Your task to perform on an android device: Open wifi settings Image 0: 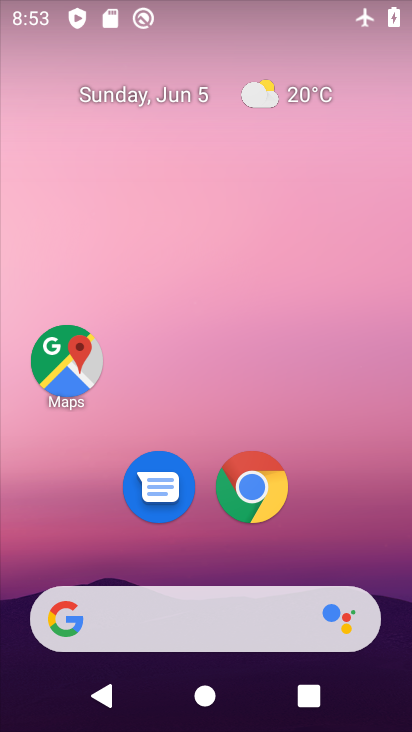
Step 0: drag from (178, 630) to (234, 109)
Your task to perform on an android device: Open wifi settings Image 1: 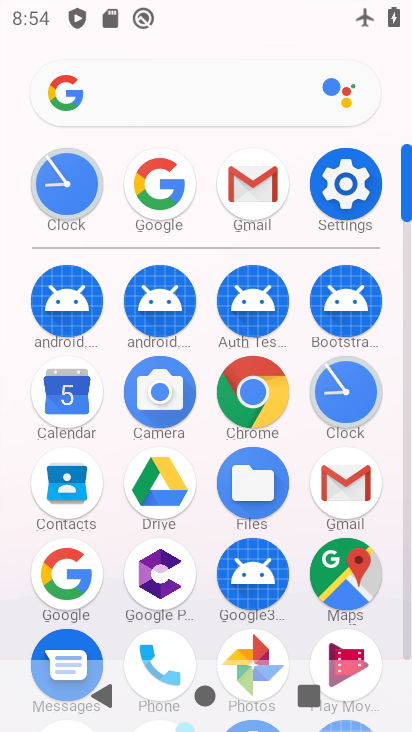
Step 1: click (340, 193)
Your task to perform on an android device: Open wifi settings Image 2: 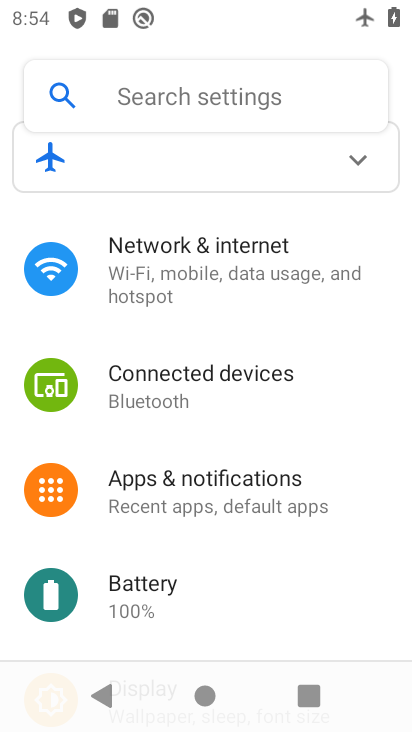
Step 2: click (170, 266)
Your task to perform on an android device: Open wifi settings Image 3: 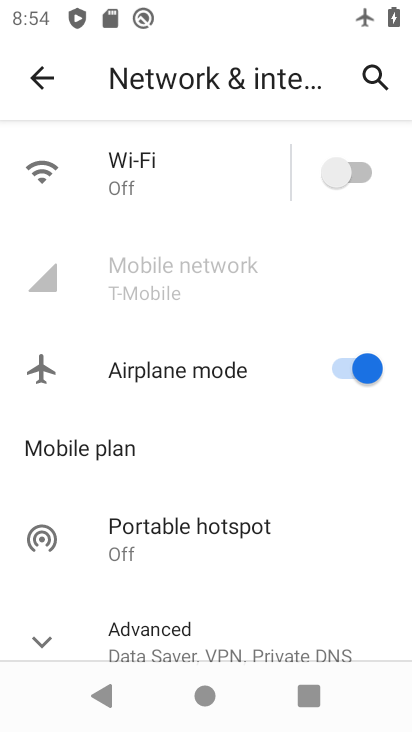
Step 3: click (200, 158)
Your task to perform on an android device: Open wifi settings Image 4: 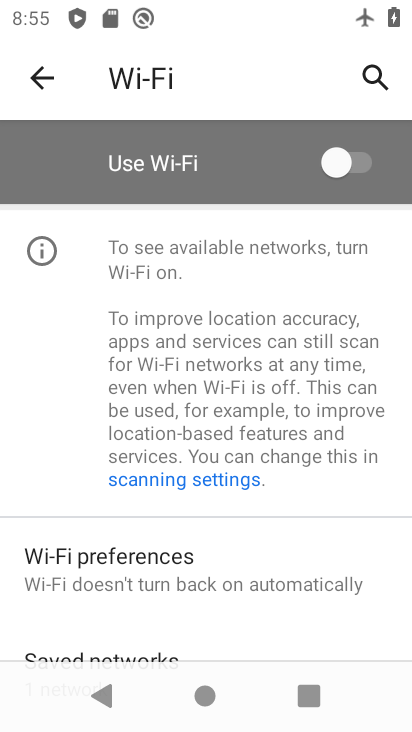
Step 4: task complete